Your task to perform on an android device: find which apps use the phone's location Image 0: 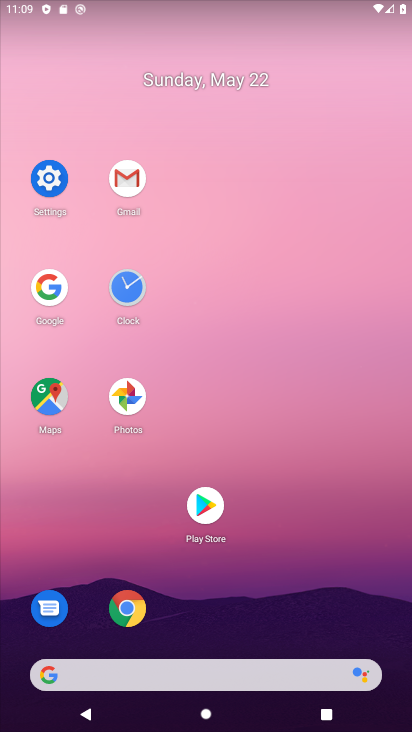
Step 0: click (60, 177)
Your task to perform on an android device: find which apps use the phone's location Image 1: 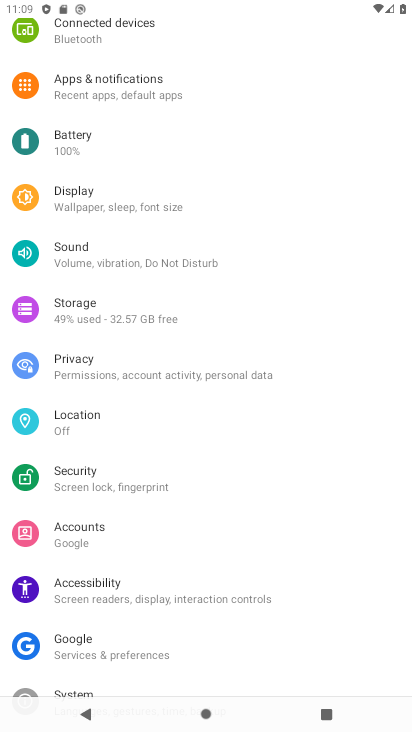
Step 1: click (135, 429)
Your task to perform on an android device: find which apps use the phone's location Image 2: 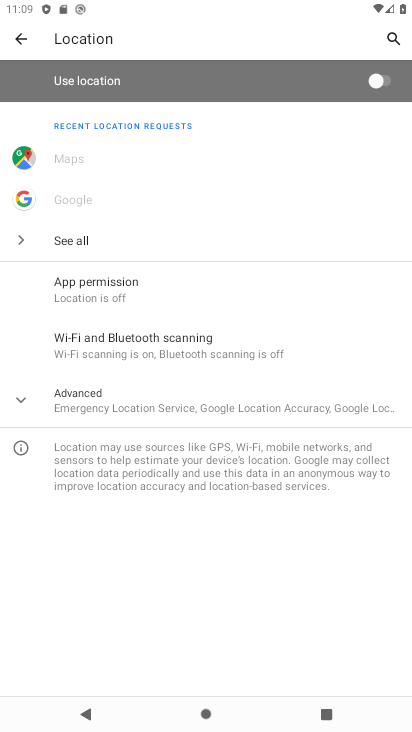
Step 2: task complete